Your task to perform on an android device: open the mobile data screen to see how much data has been used Image 0: 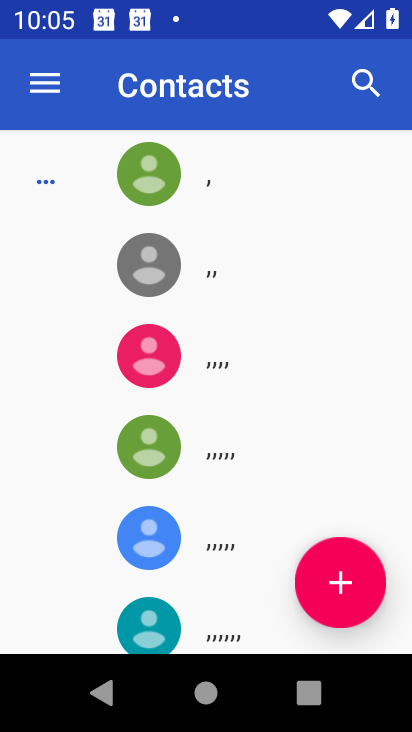
Step 0: press back button
Your task to perform on an android device: open the mobile data screen to see how much data has been used Image 1: 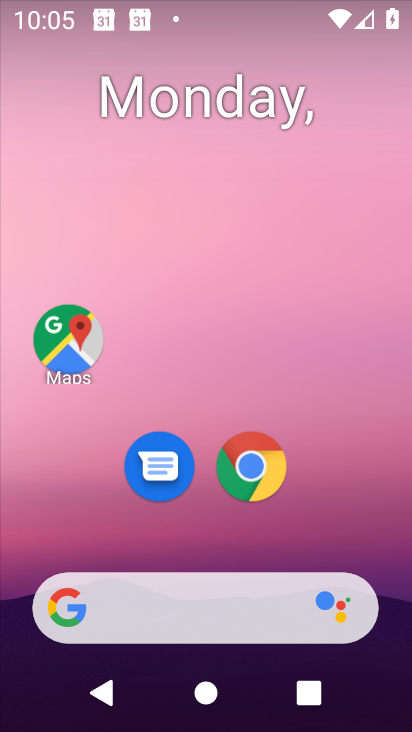
Step 1: drag from (316, 518) to (177, 69)
Your task to perform on an android device: open the mobile data screen to see how much data has been used Image 2: 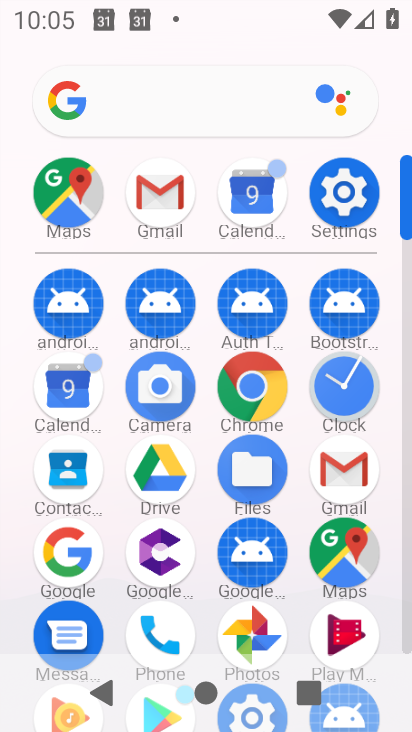
Step 2: click (343, 195)
Your task to perform on an android device: open the mobile data screen to see how much data has been used Image 3: 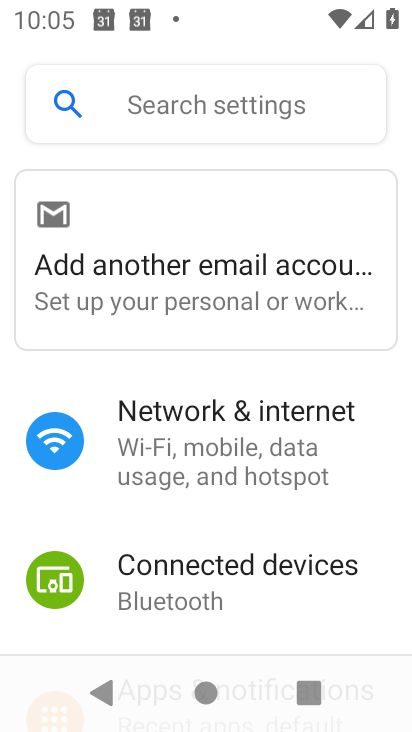
Step 3: click (208, 270)
Your task to perform on an android device: open the mobile data screen to see how much data has been used Image 4: 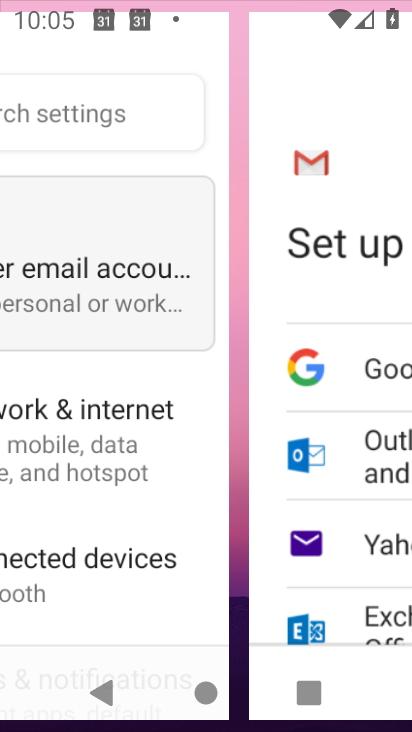
Step 4: click (236, 445)
Your task to perform on an android device: open the mobile data screen to see how much data has been used Image 5: 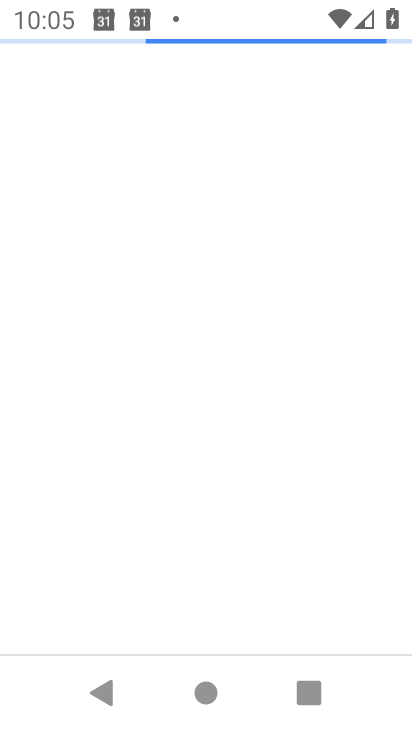
Step 5: press back button
Your task to perform on an android device: open the mobile data screen to see how much data has been used Image 6: 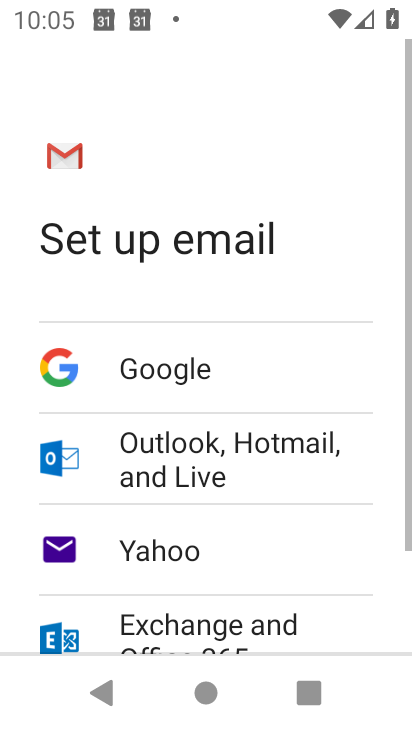
Step 6: press back button
Your task to perform on an android device: open the mobile data screen to see how much data has been used Image 7: 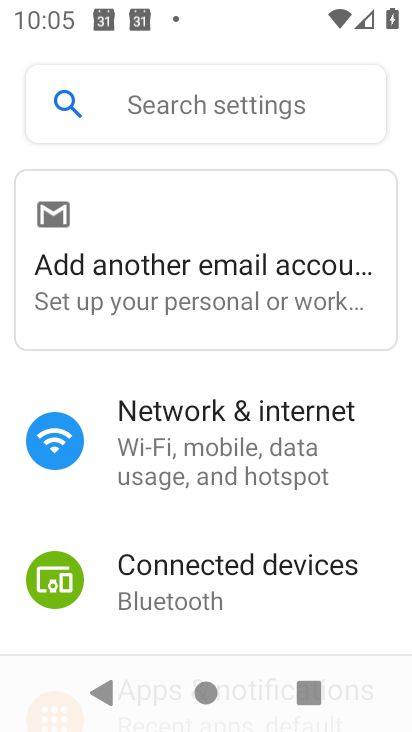
Step 7: click (256, 433)
Your task to perform on an android device: open the mobile data screen to see how much data has been used Image 8: 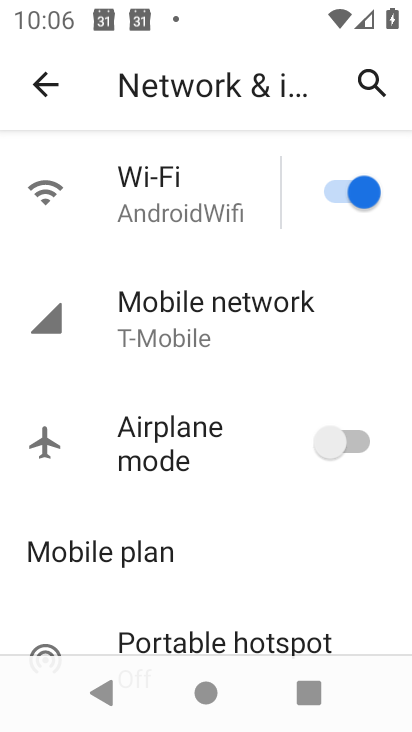
Step 8: task complete